Your task to perform on an android device: open app "YouTube Kids" (install if not already installed) Image 0: 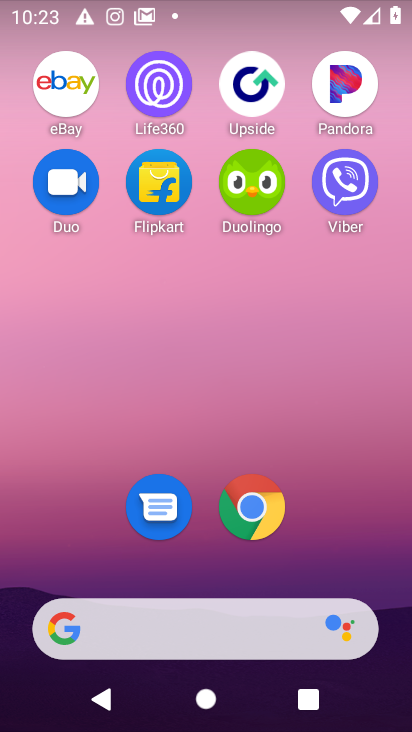
Step 0: drag from (183, 238) to (217, 17)
Your task to perform on an android device: open app "YouTube Kids" (install if not already installed) Image 1: 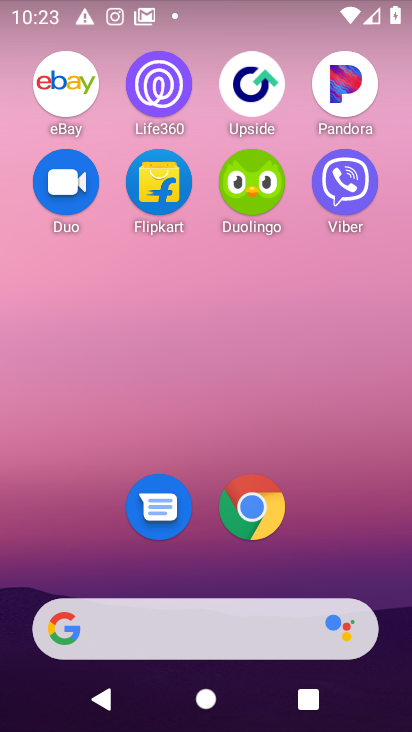
Step 1: drag from (194, 502) to (220, 13)
Your task to perform on an android device: open app "YouTube Kids" (install if not already installed) Image 2: 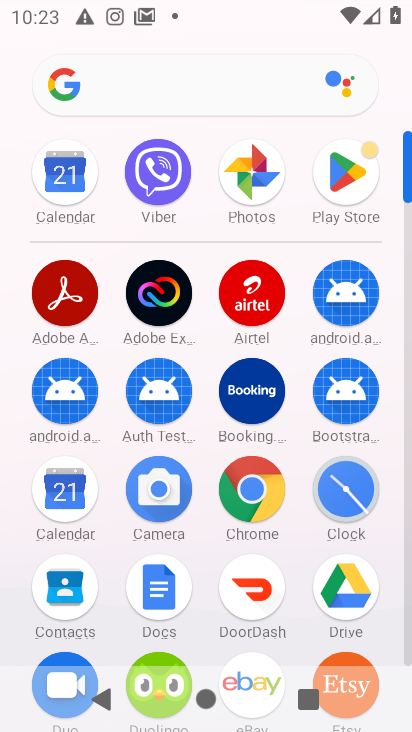
Step 2: click (349, 167)
Your task to perform on an android device: open app "YouTube Kids" (install if not already installed) Image 3: 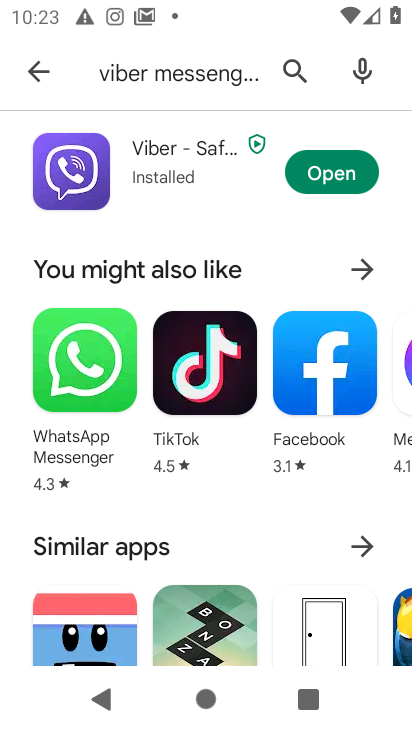
Step 3: click (30, 73)
Your task to perform on an android device: open app "YouTube Kids" (install if not already installed) Image 4: 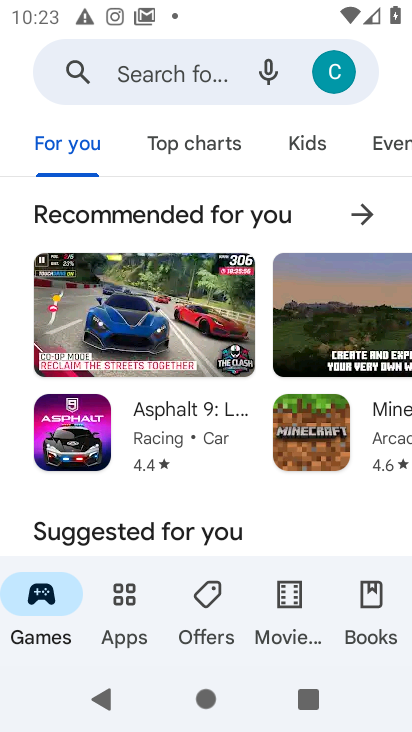
Step 4: click (180, 61)
Your task to perform on an android device: open app "YouTube Kids" (install if not already installed) Image 5: 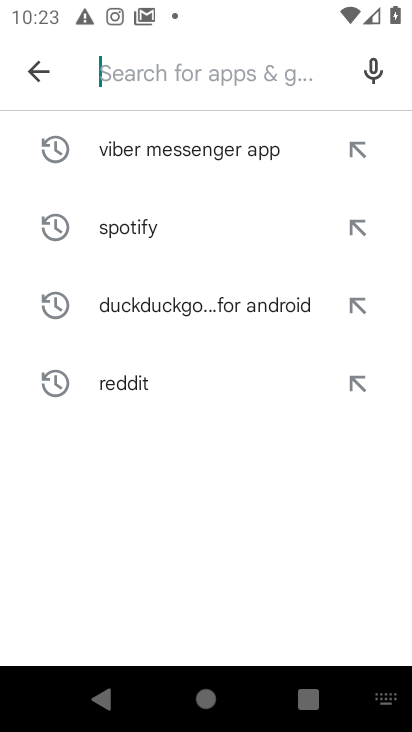
Step 5: type "YouTube Kids"
Your task to perform on an android device: open app "YouTube Kids" (install if not already installed) Image 6: 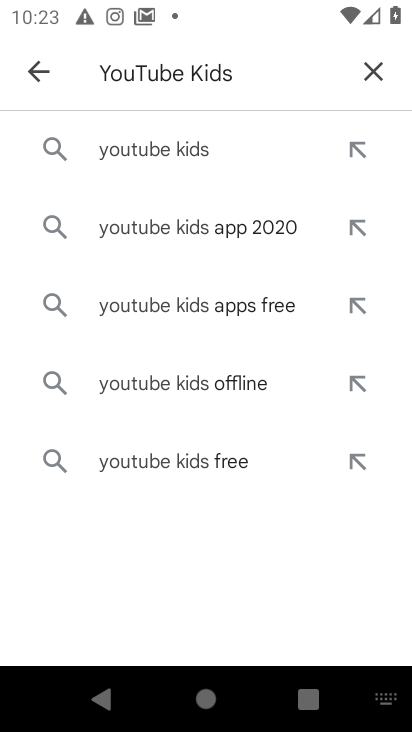
Step 6: click (191, 154)
Your task to perform on an android device: open app "YouTube Kids" (install if not already installed) Image 7: 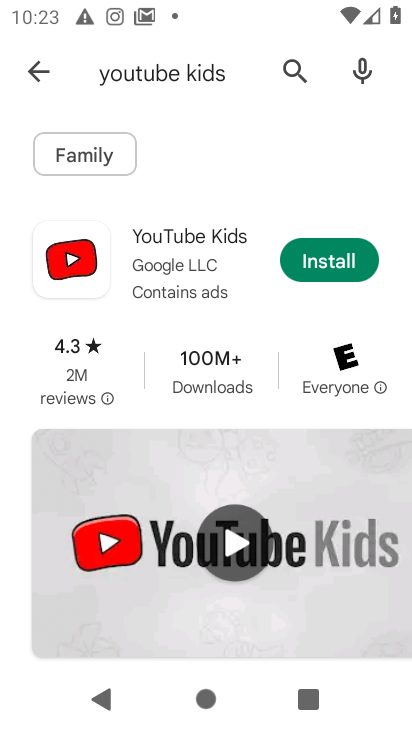
Step 7: click (335, 265)
Your task to perform on an android device: open app "YouTube Kids" (install if not already installed) Image 8: 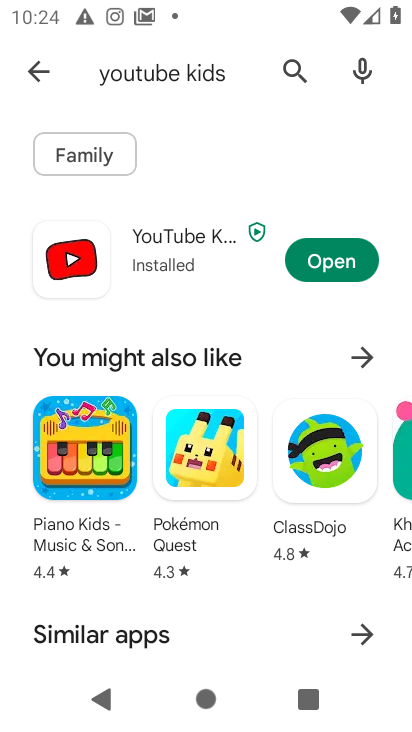
Step 8: click (335, 265)
Your task to perform on an android device: open app "YouTube Kids" (install if not already installed) Image 9: 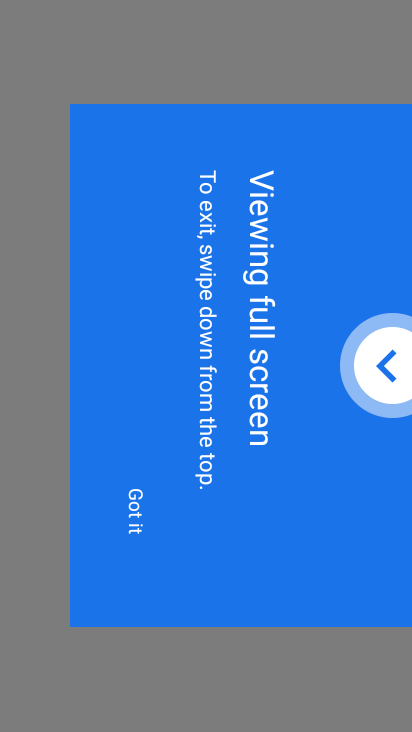
Step 9: task complete